Your task to perform on an android device: Search for vegetarian restaurants on Maps Image 0: 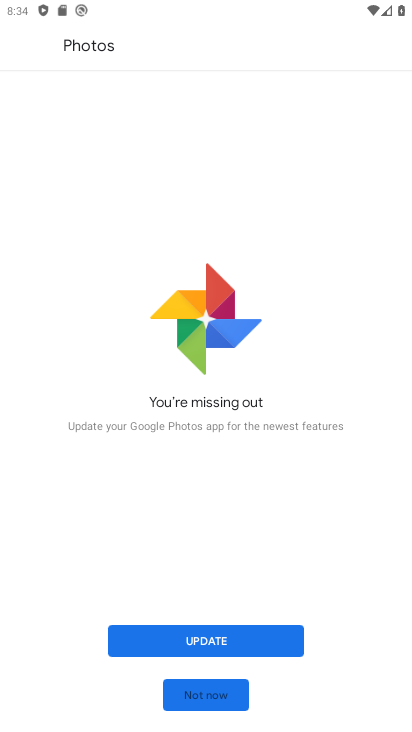
Step 0: press home button
Your task to perform on an android device: Search for vegetarian restaurants on Maps Image 1: 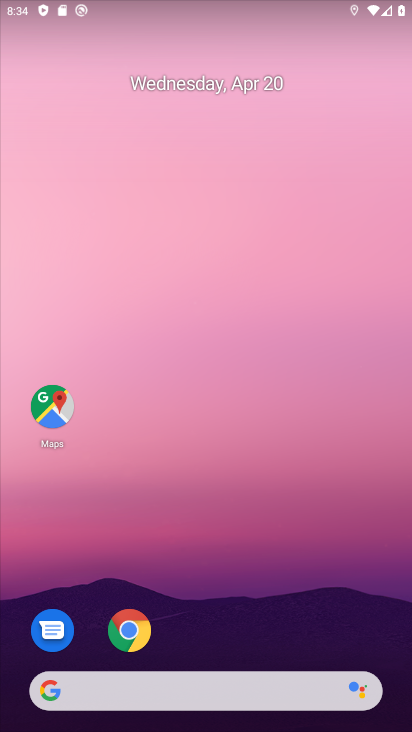
Step 1: click (65, 403)
Your task to perform on an android device: Search for vegetarian restaurants on Maps Image 2: 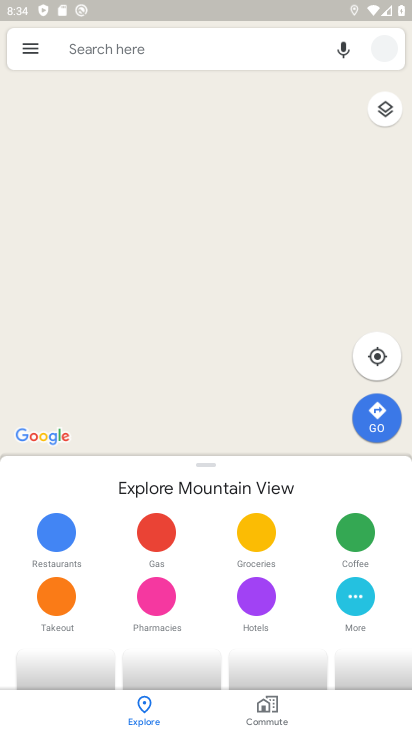
Step 2: click (204, 54)
Your task to perform on an android device: Search for vegetarian restaurants on Maps Image 3: 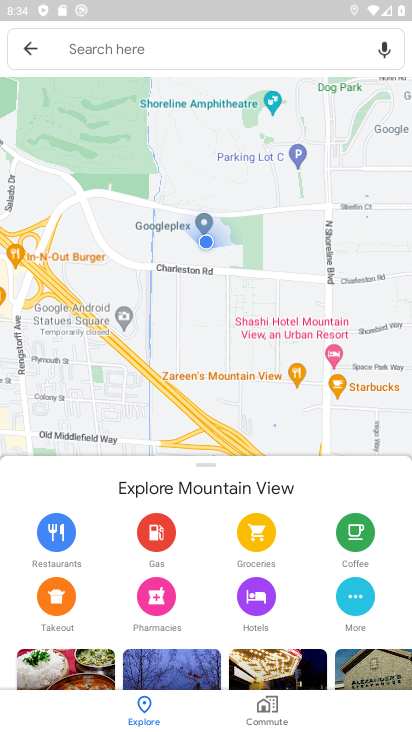
Step 3: click (183, 50)
Your task to perform on an android device: Search for vegetarian restaurants on Maps Image 4: 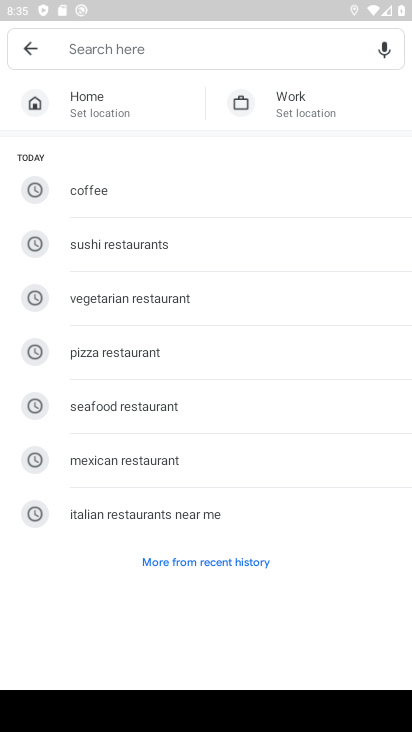
Step 4: type "vegetarian restaurants"
Your task to perform on an android device: Search for vegetarian restaurants on Maps Image 5: 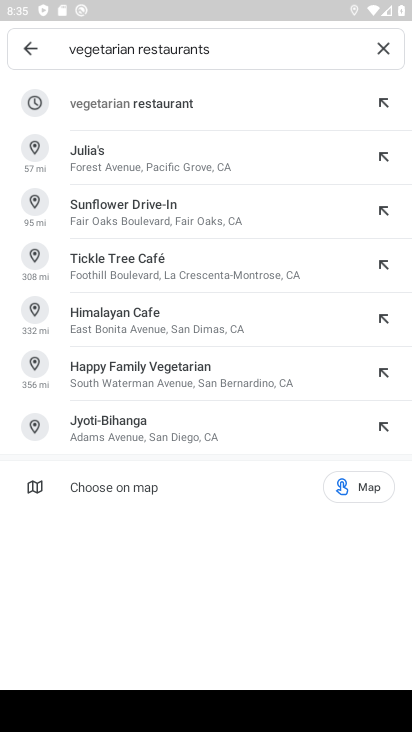
Step 5: click (195, 110)
Your task to perform on an android device: Search for vegetarian restaurants on Maps Image 6: 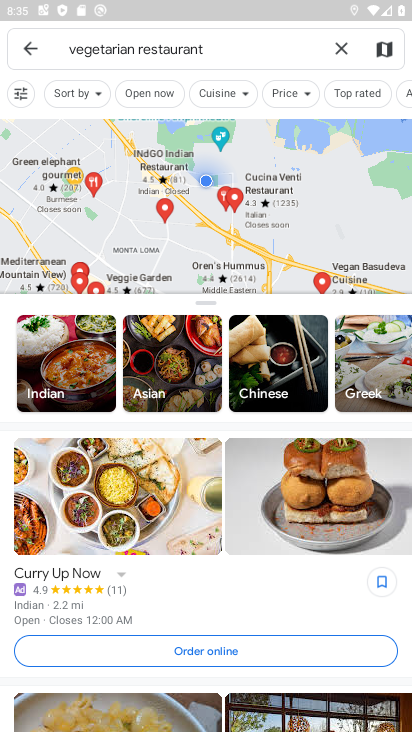
Step 6: task complete